Your task to perform on an android device: Open Google Chrome Image 0: 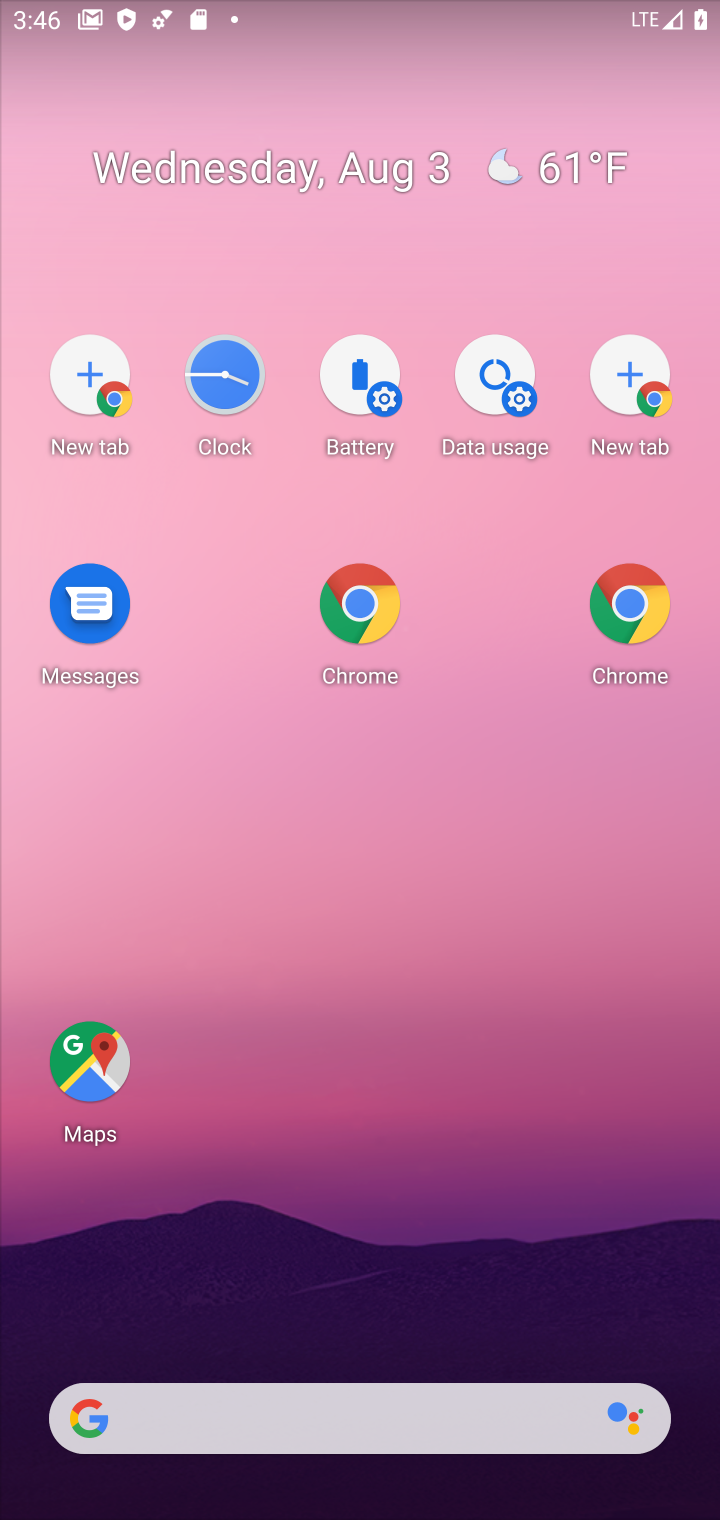
Step 0: click (360, 59)
Your task to perform on an android device: Open Google Chrome Image 1: 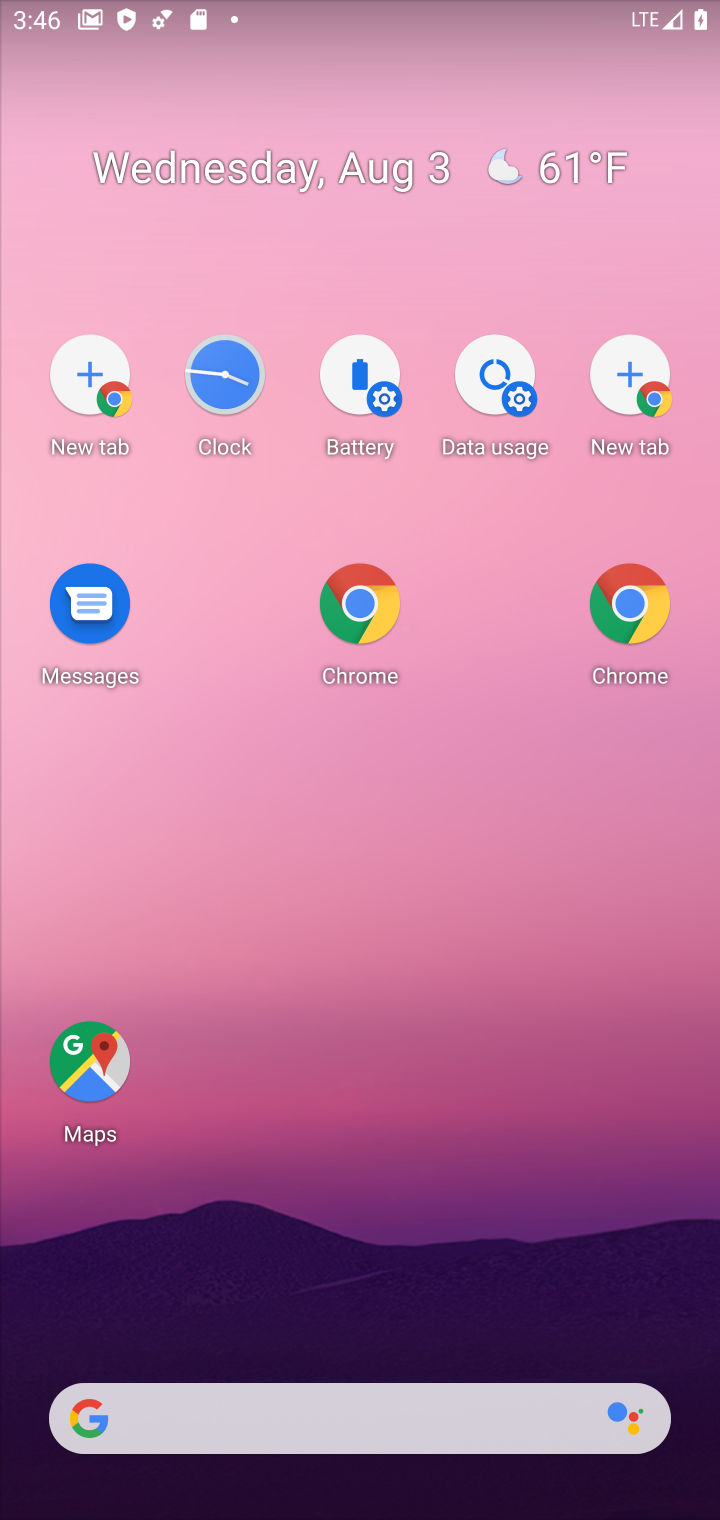
Step 1: drag from (407, 1141) to (410, 33)
Your task to perform on an android device: Open Google Chrome Image 2: 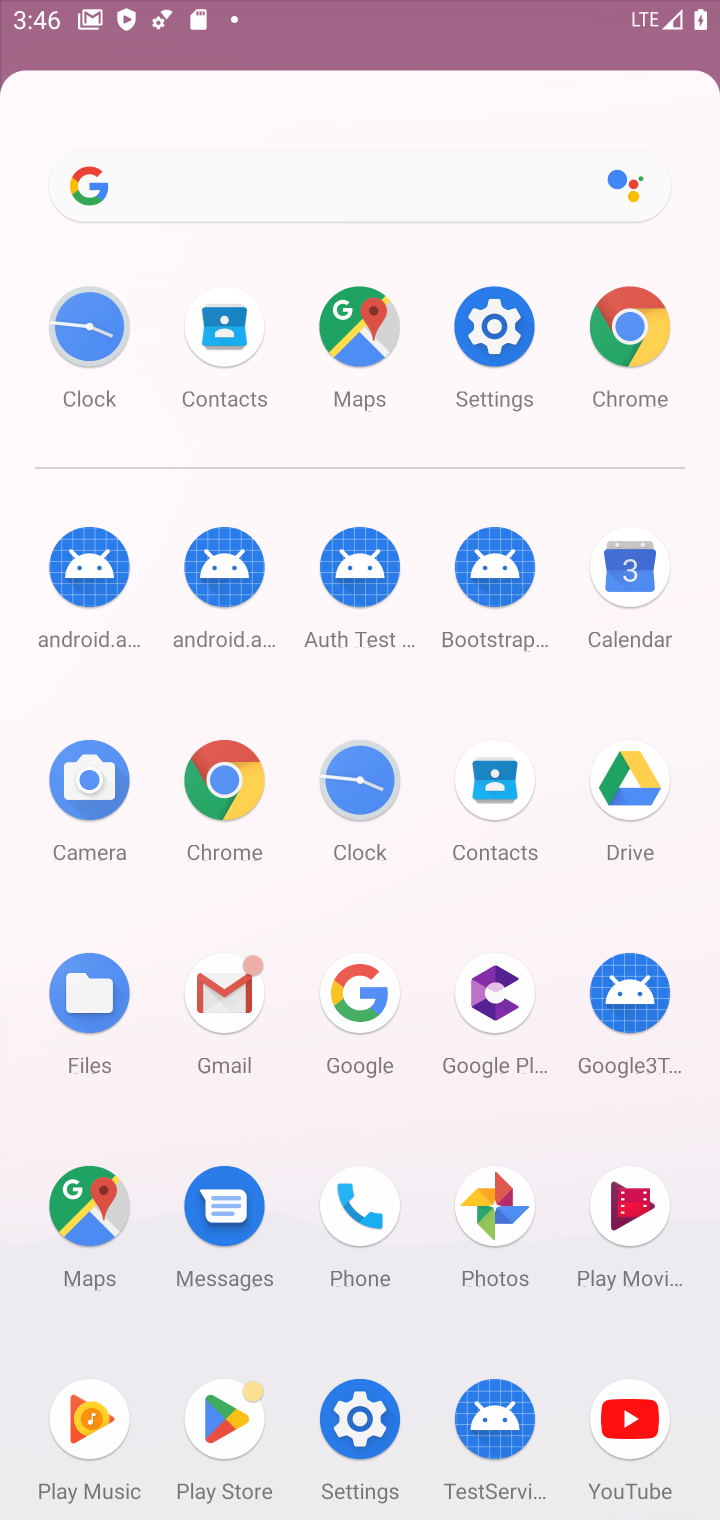
Step 2: drag from (291, 605) to (471, 382)
Your task to perform on an android device: Open Google Chrome Image 3: 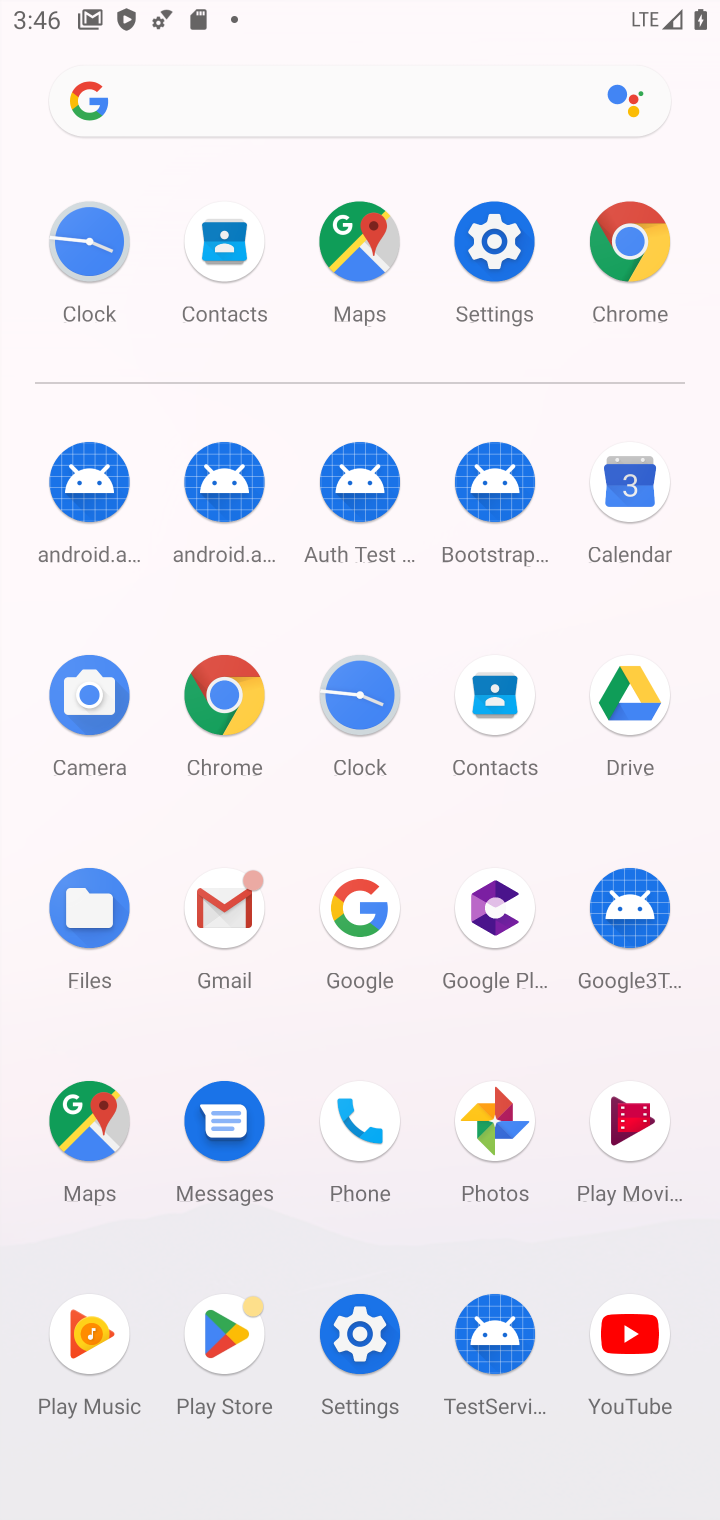
Step 3: click (228, 703)
Your task to perform on an android device: Open Google Chrome Image 4: 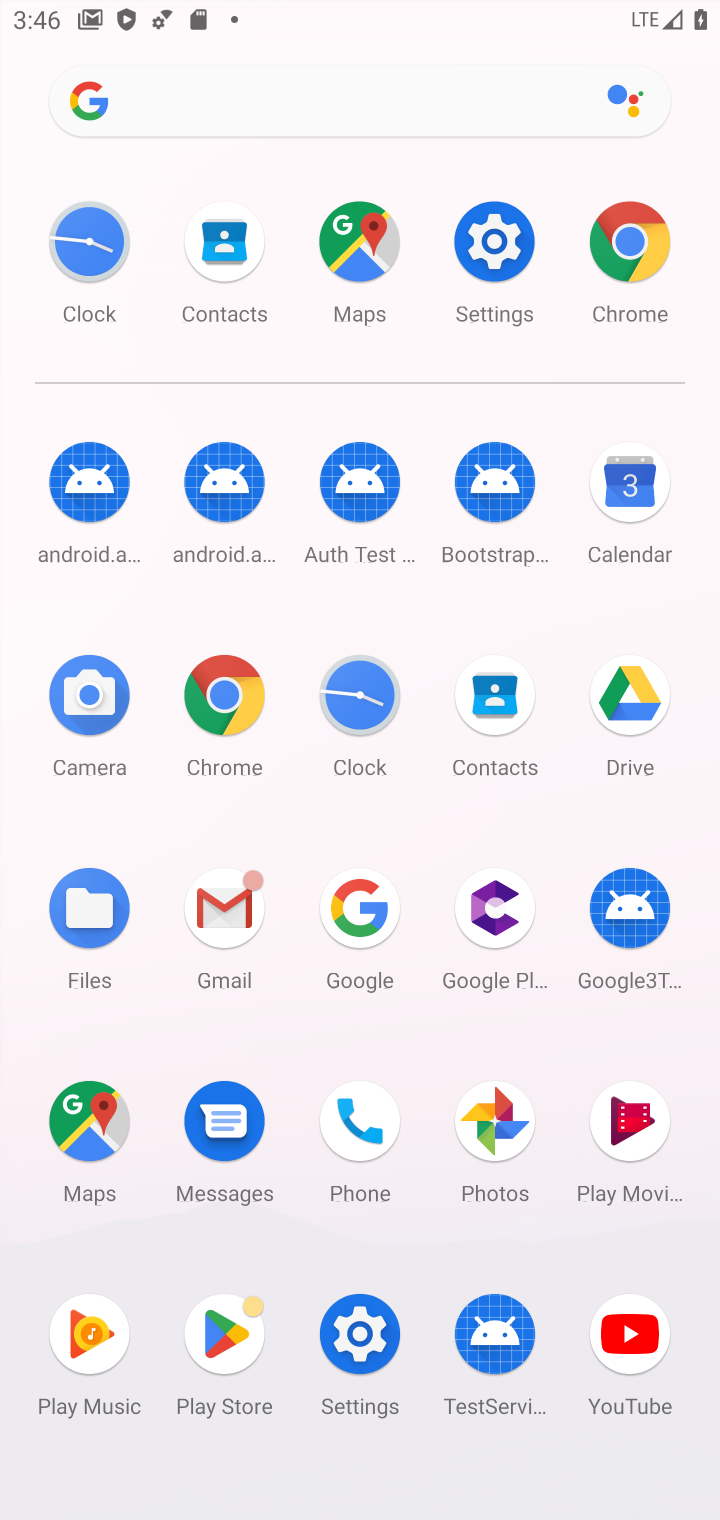
Step 4: click (228, 703)
Your task to perform on an android device: Open Google Chrome Image 5: 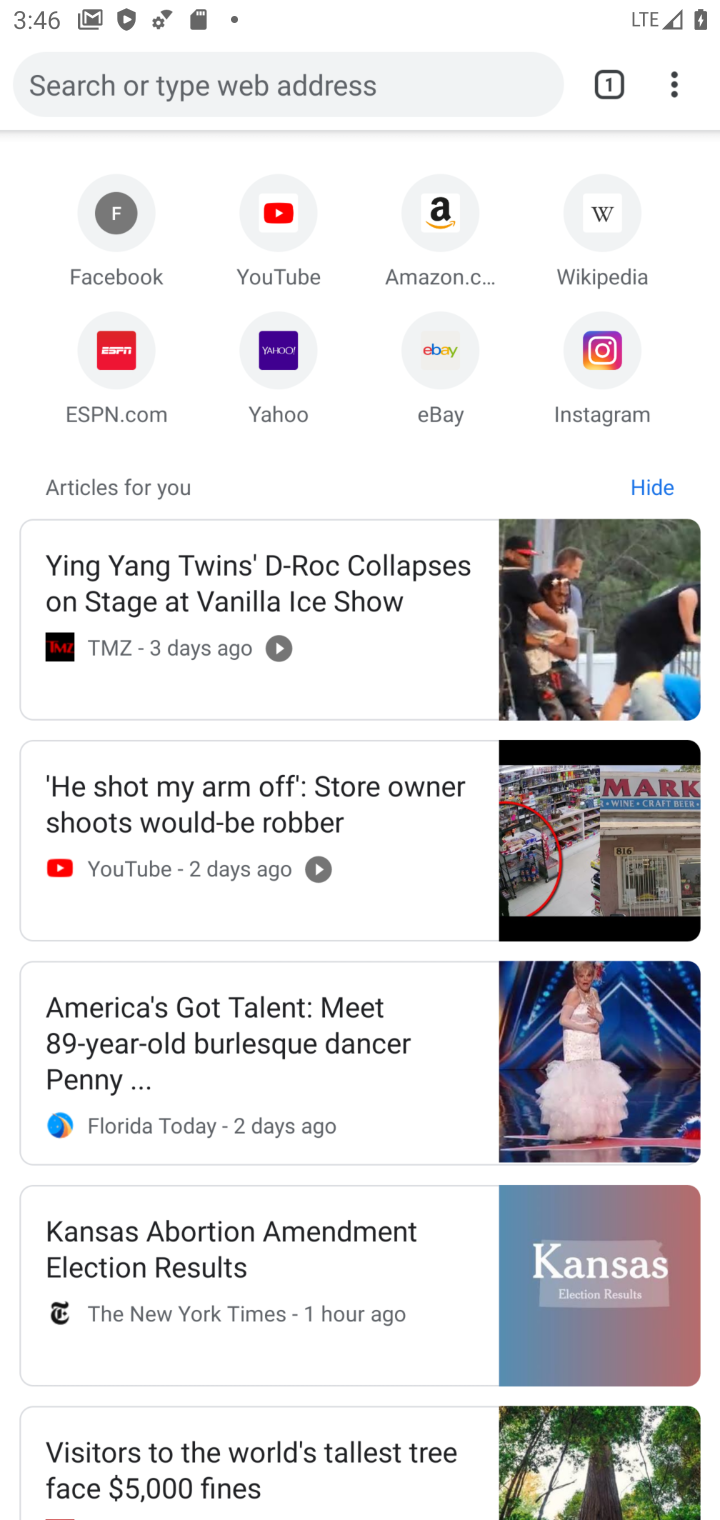
Step 5: click (235, 705)
Your task to perform on an android device: Open Google Chrome Image 6: 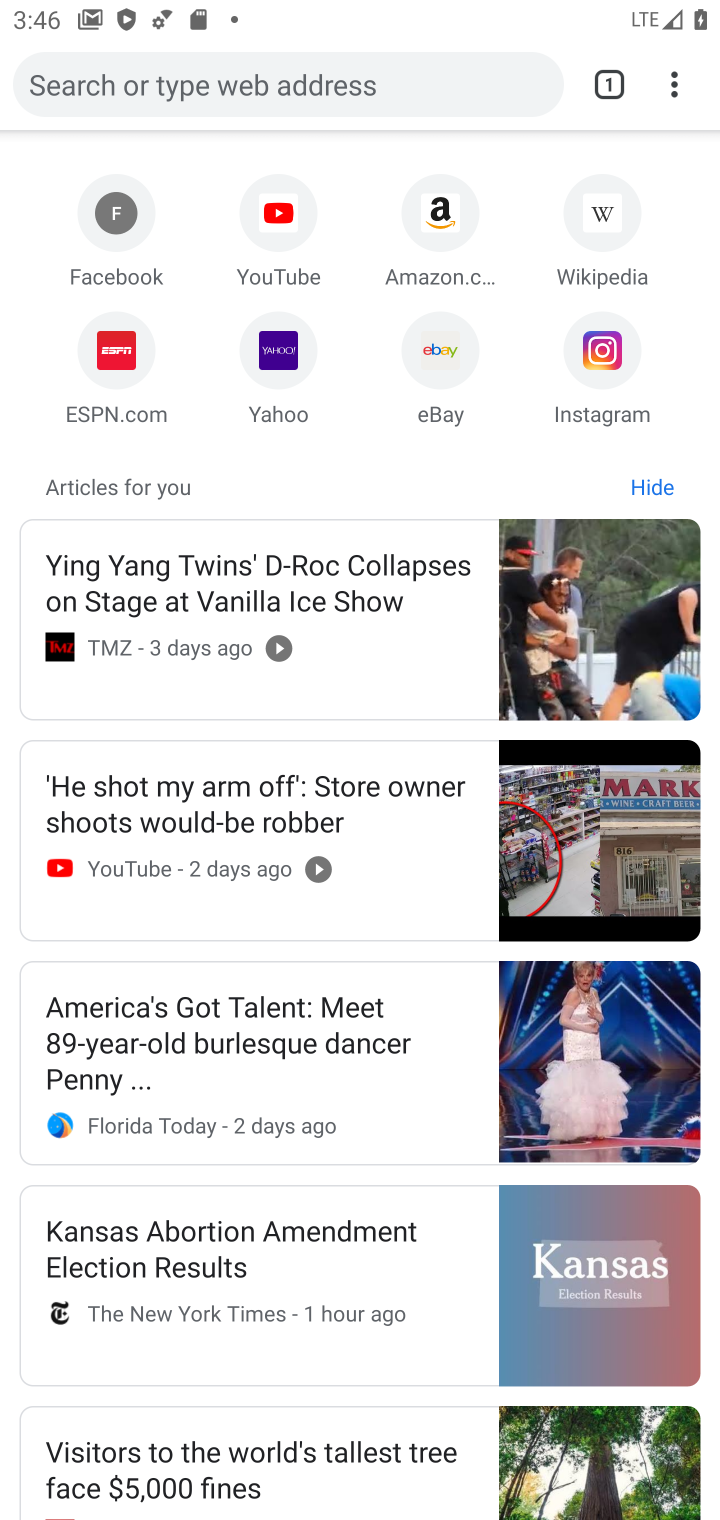
Step 6: task complete